Your task to perform on an android device: Show me popular games on the Play Store Image 0: 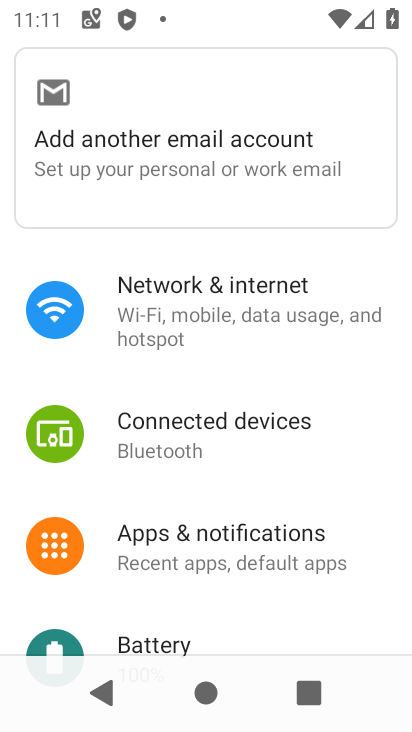
Step 0: press home button
Your task to perform on an android device: Show me popular games on the Play Store Image 1: 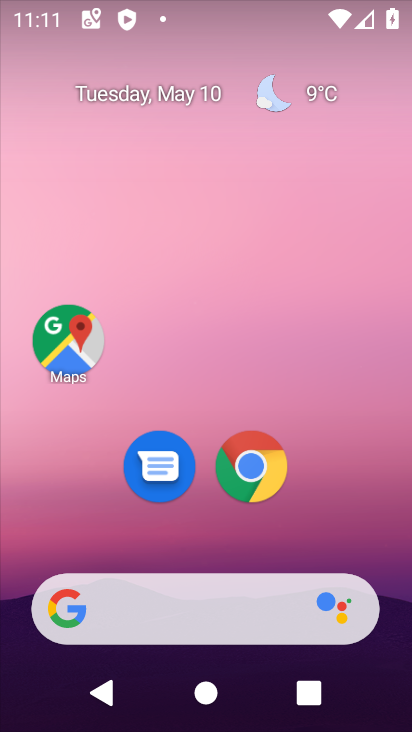
Step 1: drag from (262, 558) to (177, 139)
Your task to perform on an android device: Show me popular games on the Play Store Image 2: 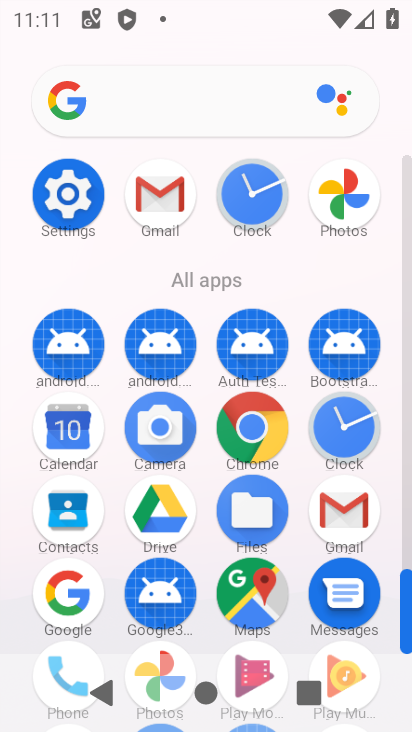
Step 2: drag from (204, 623) to (182, 441)
Your task to perform on an android device: Show me popular games on the Play Store Image 3: 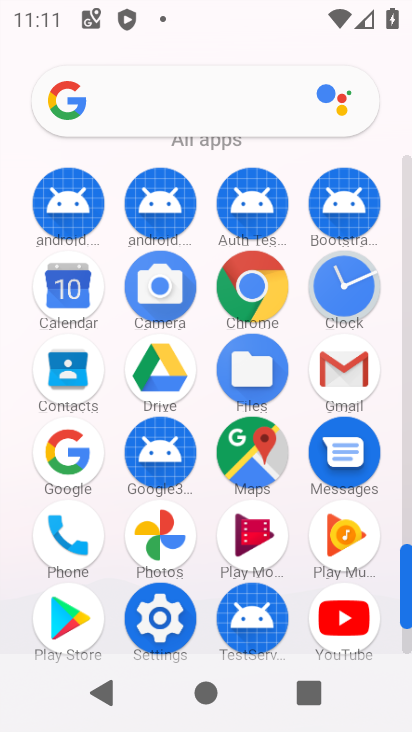
Step 3: click (72, 631)
Your task to perform on an android device: Show me popular games on the Play Store Image 4: 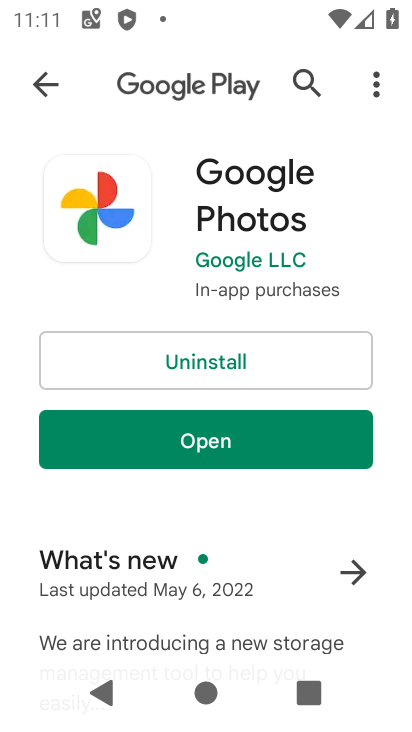
Step 4: click (43, 99)
Your task to perform on an android device: Show me popular games on the Play Store Image 5: 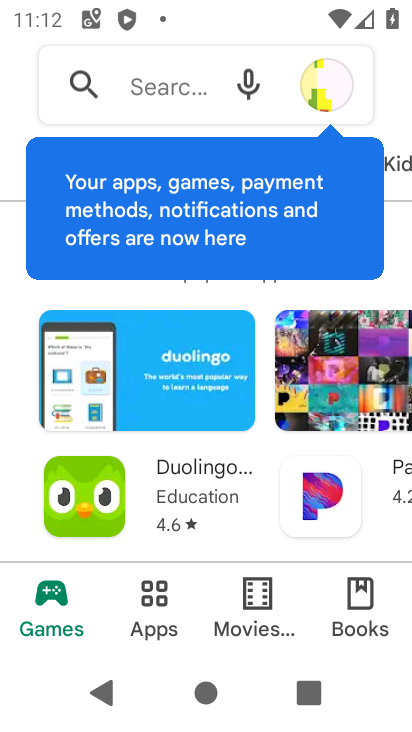
Step 5: drag from (405, 174) to (188, 206)
Your task to perform on an android device: Show me popular games on the Play Store Image 6: 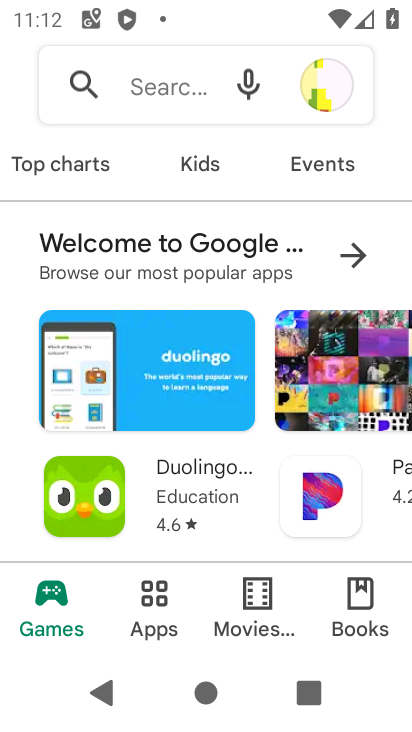
Step 6: click (35, 160)
Your task to perform on an android device: Show me popular games on the Play Store Image 7: 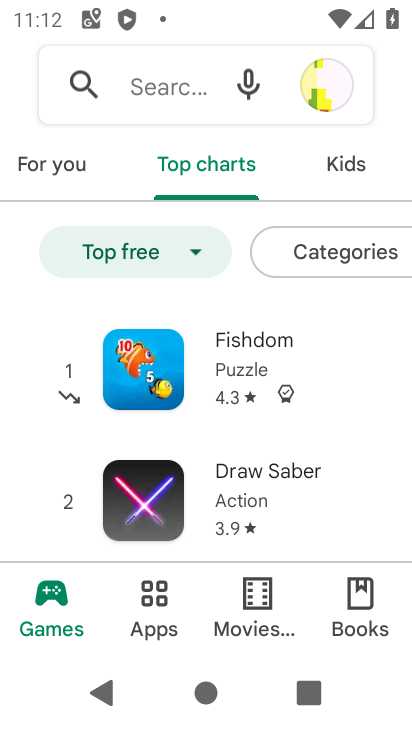
Step 7: task complete